Your task to perform on an android device: Turn on the flashlight Image 0: 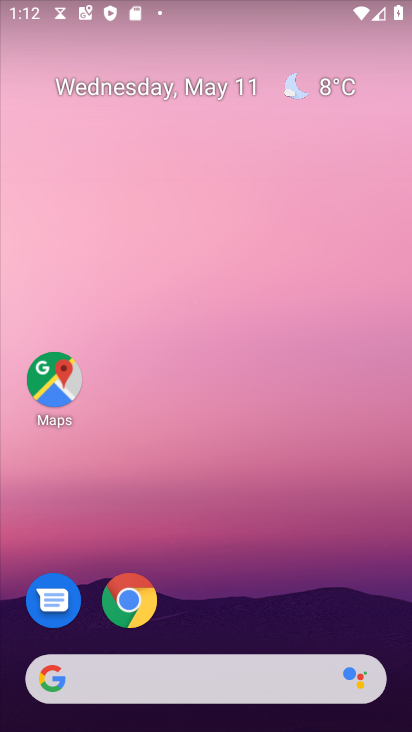
Step 0: drag from (214, 9) to (210, 466)
Your task to perform on an android device: Turn on the flashlight Image 1: 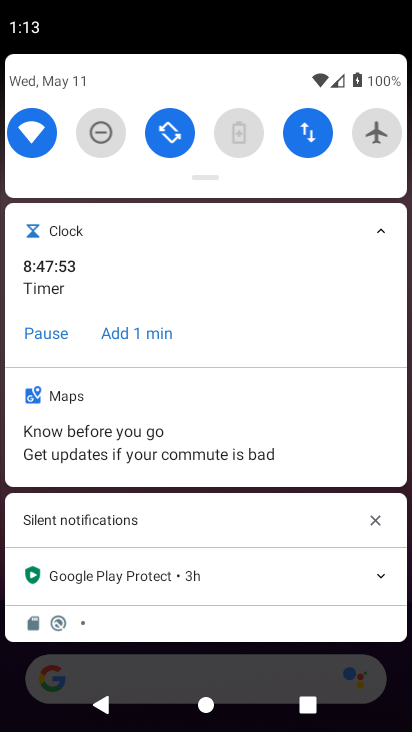
Step 1: task complete